Your task to perform on an android device: set default search engine in the chrome app Image 0: 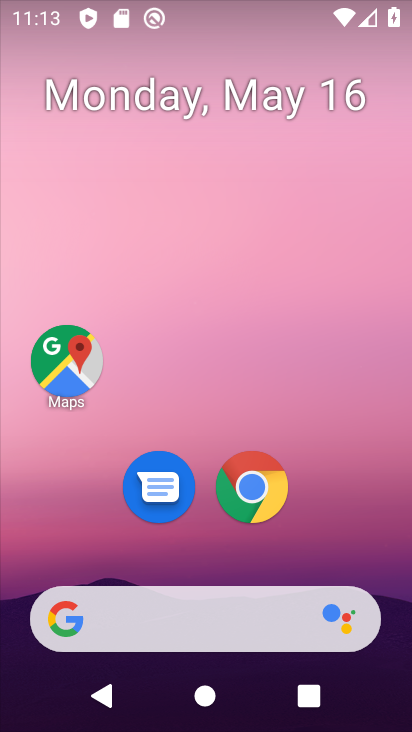
Step 0: click (253, 492)
Your task to perform on an android device: set default search engine in the chrome app Image 1: 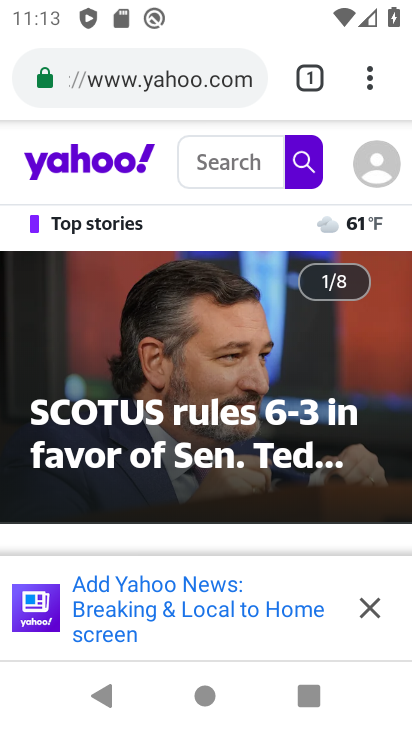
Step 1: click (375, 80)
Your task to perform on an android device: set default search engine in the chrome app Image 2: 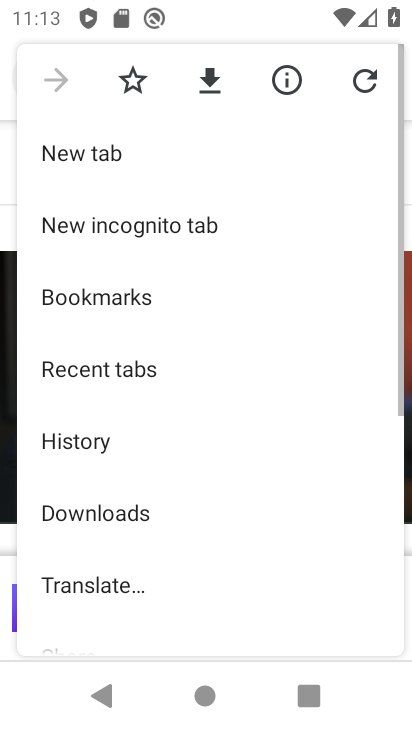
Step 2: drag from (166, 599) to (277, 183)
Your task to perform on an android device: set default search engine in the chrome app Image 3: 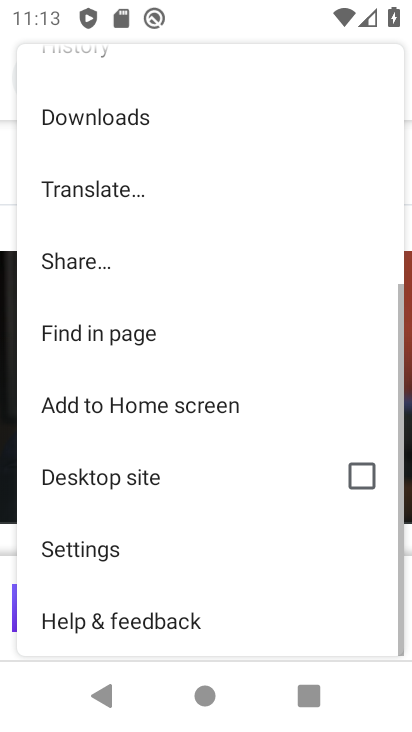
Step 3: click (86, 539)
Your task to perform on an android device: set default search engine in the chrome app Image 4: 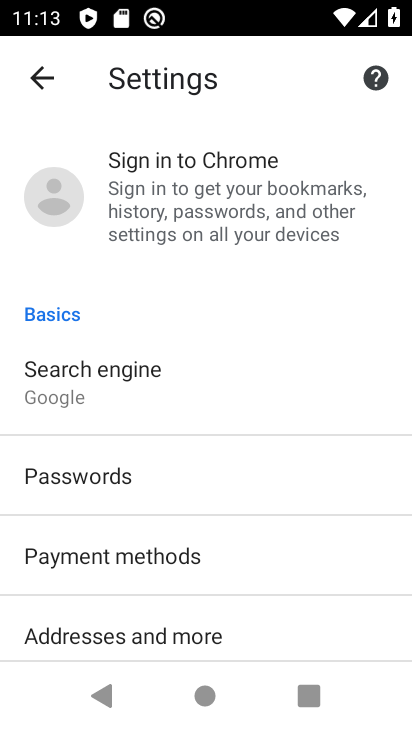
Step 4: click (72, 408)
Your task to perform on an android device: set default search engine in the chrome app Image 5: 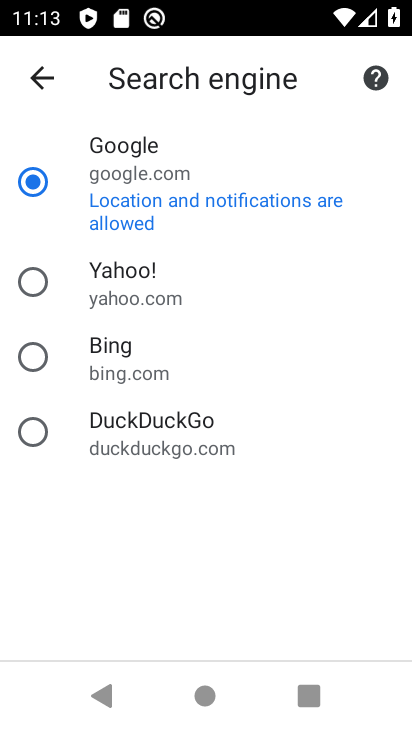
Step 5: task complete